Your task to perform on an android device: Open Google Image 0: 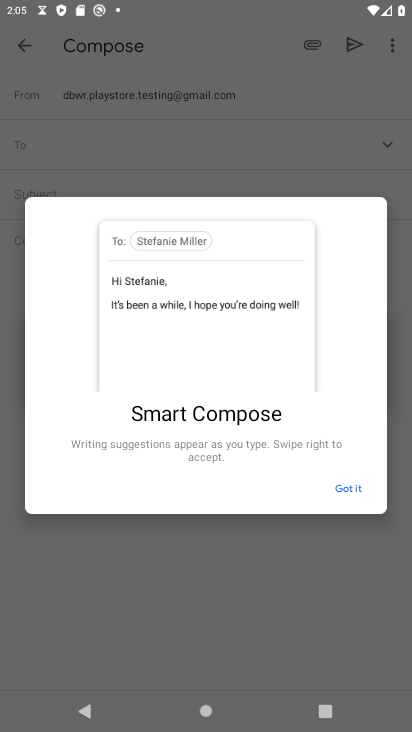
Step 0: press home button
Your task to perform on an android device: Open Google Image 1: 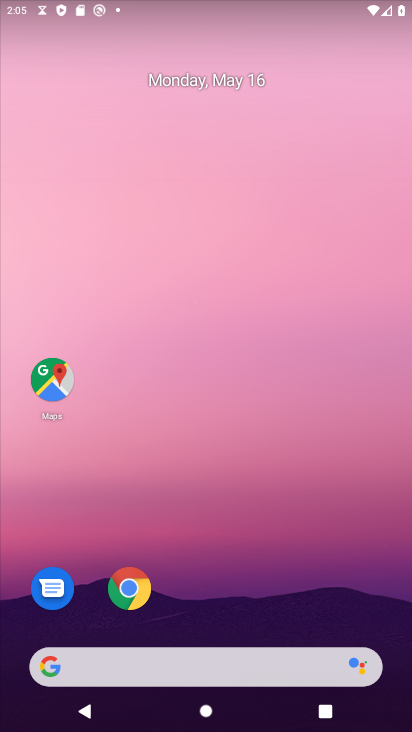
Step 1: drag from (223, 711) to (188, 232)
Your task to perform on an android device: Open Google Image 2: 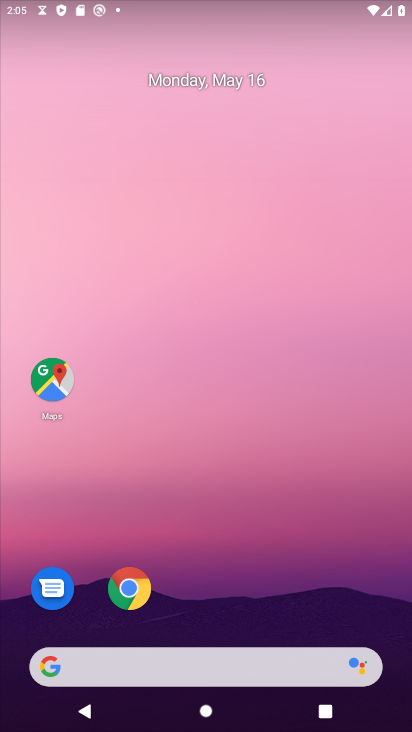
Step 2: drag from (237, 719) to (237, 95)
Your task to perform on an android device: Open Google Image 3: 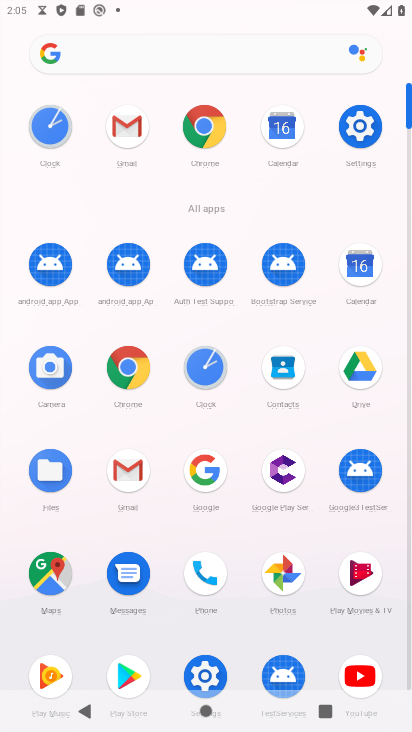
Step 3: click (201, 468)
Your task to perform on an android device: Open Google Image 4: 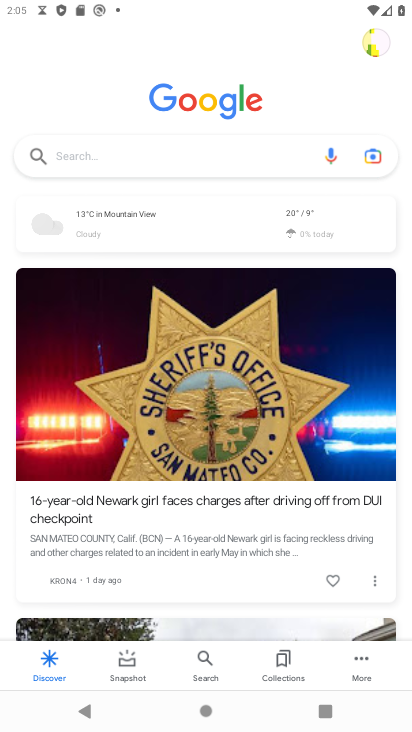
Step 4: task complete